Your task to perform on an android device: Search for razer blade on walmart, select the first entry, and add it to the cart. Image 0: 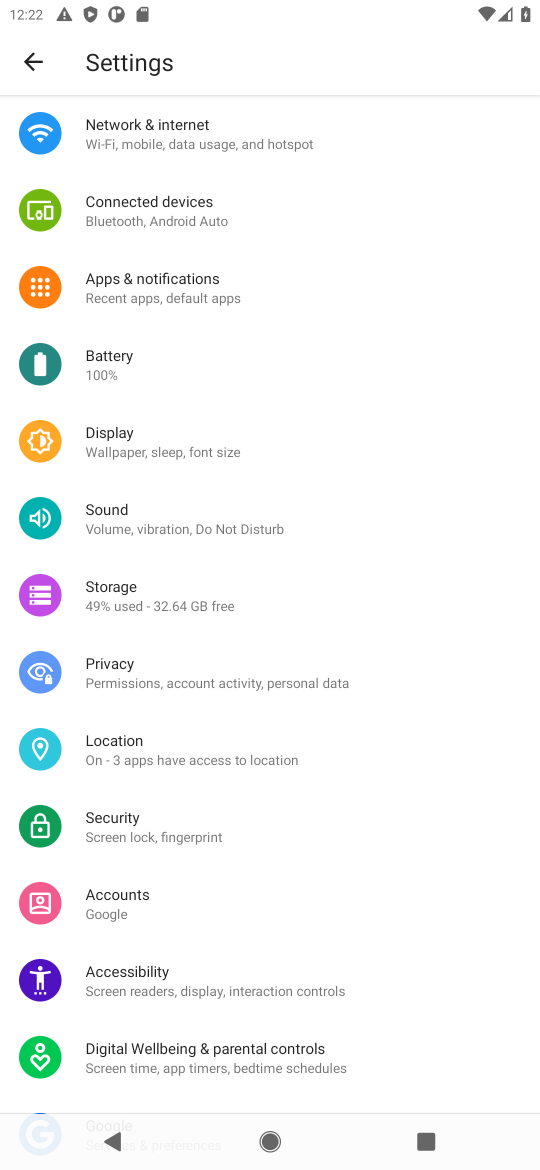
Step 0: press home button
Your task to perform on an android device: Search for razer blade on walmart, select the first entry, and add it to the cart. Image 1: 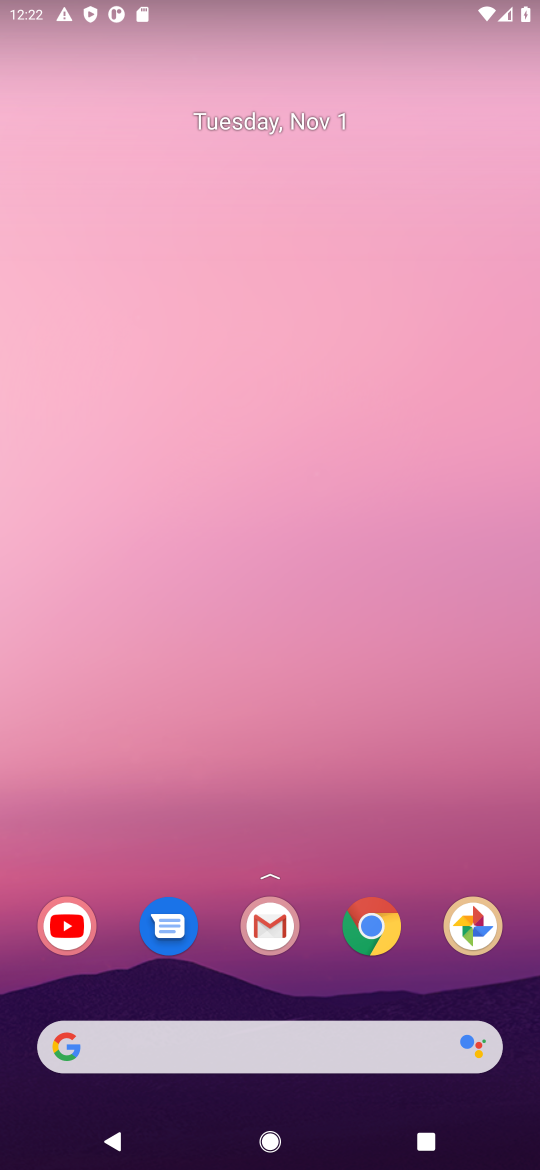
Step 1: click (369, 936)
Your task to perform on an android device: Search for razer blade on walmart, select the first entry, and add it to the cart. Image 2: 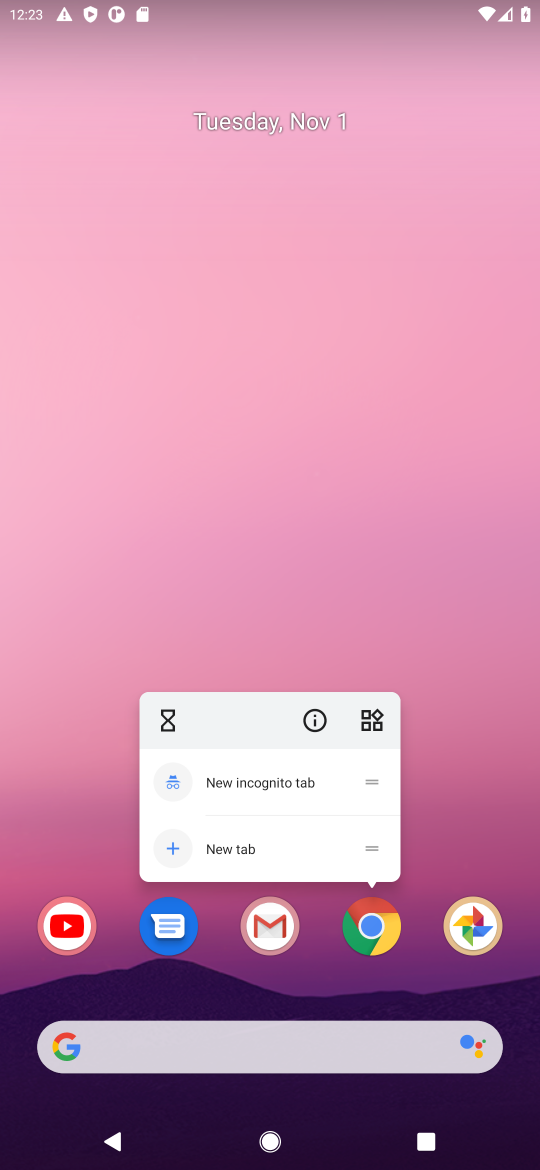
Step 2: click (372, 936)
Your task to perform on an android device: Search for razer blade on walmart, select the first entry, and add it to the cart. Image 3: 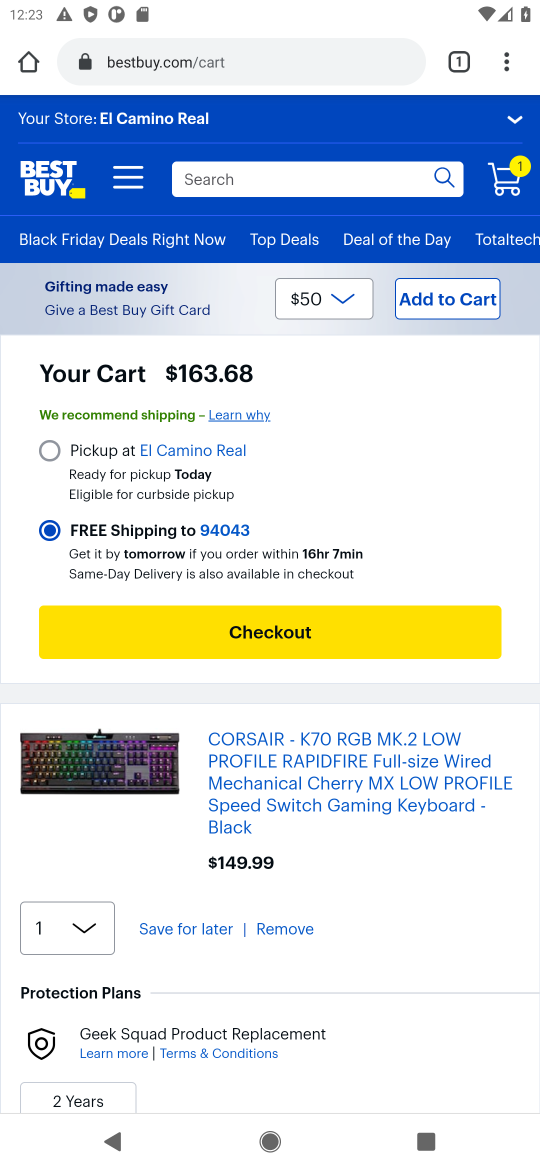
Step 3: click (192, 79)
Your task to perform on an android device: Search for razer blade on walmart, select the first entry, and add it to the cart. Image 4: 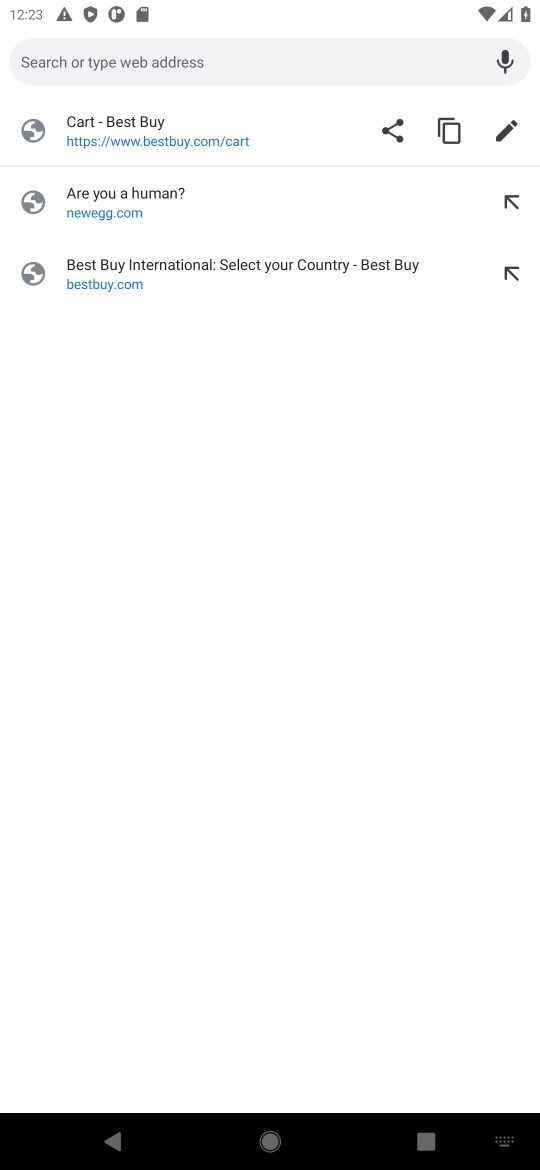
Step 4: type "walmart"
Your task to perform on an android device: Search for razer blade on walmart, select the first entry, and add it to the cart. Image 5: 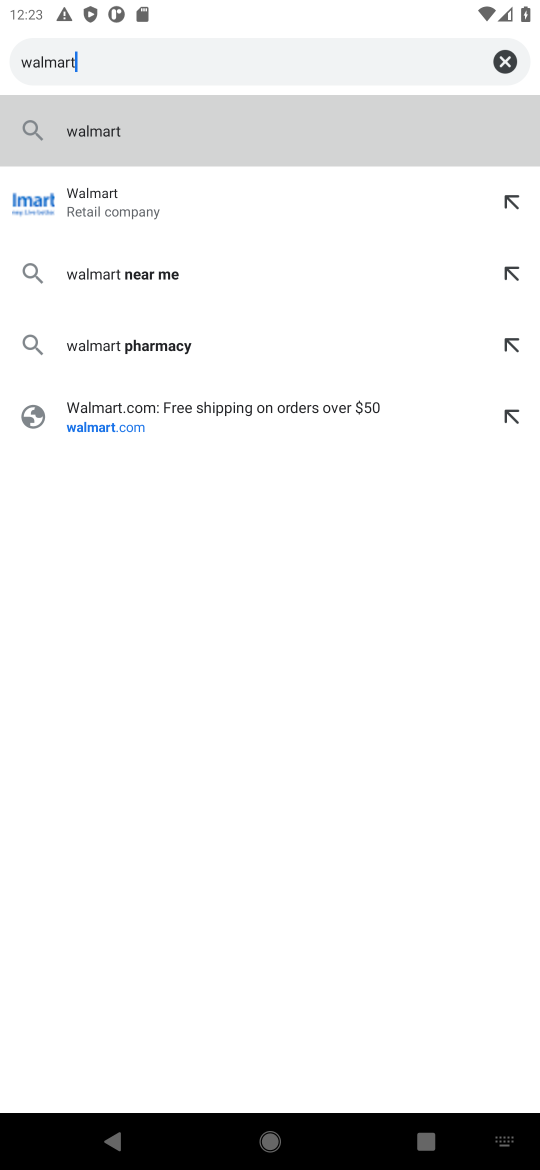
Step 5: click (110, 128)
Your task to perform on an android device: Search for razer blade on walmart, select the first entry, and add it to the cart. Image 6: 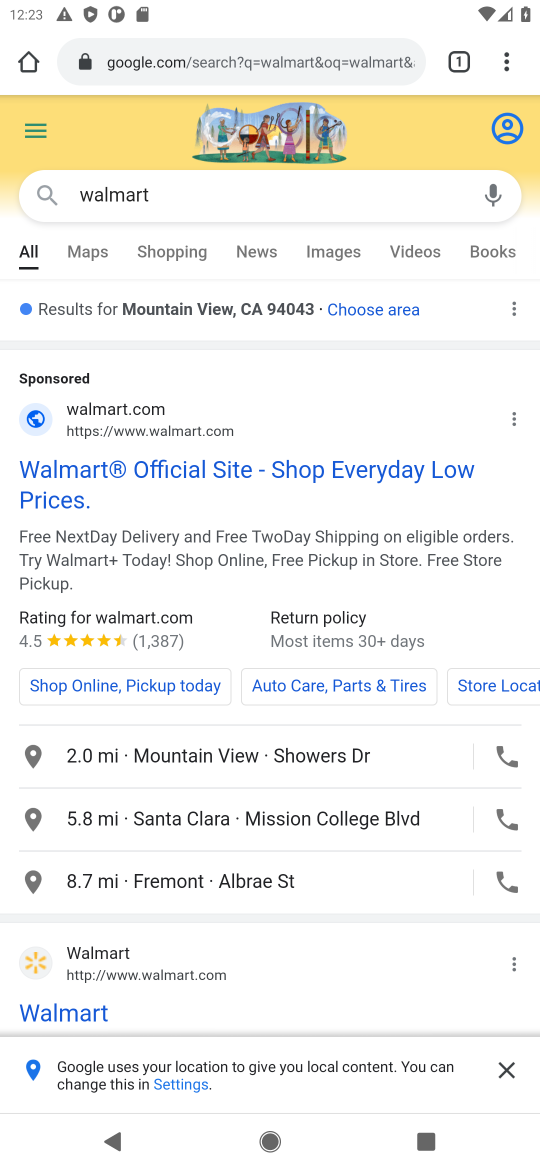
Step 6: drag from (269, 509) to (242, 274)
Your task to perform on an android device: Search for razer blade on walmart, select the first entry, and add it to the cart. Image 7: 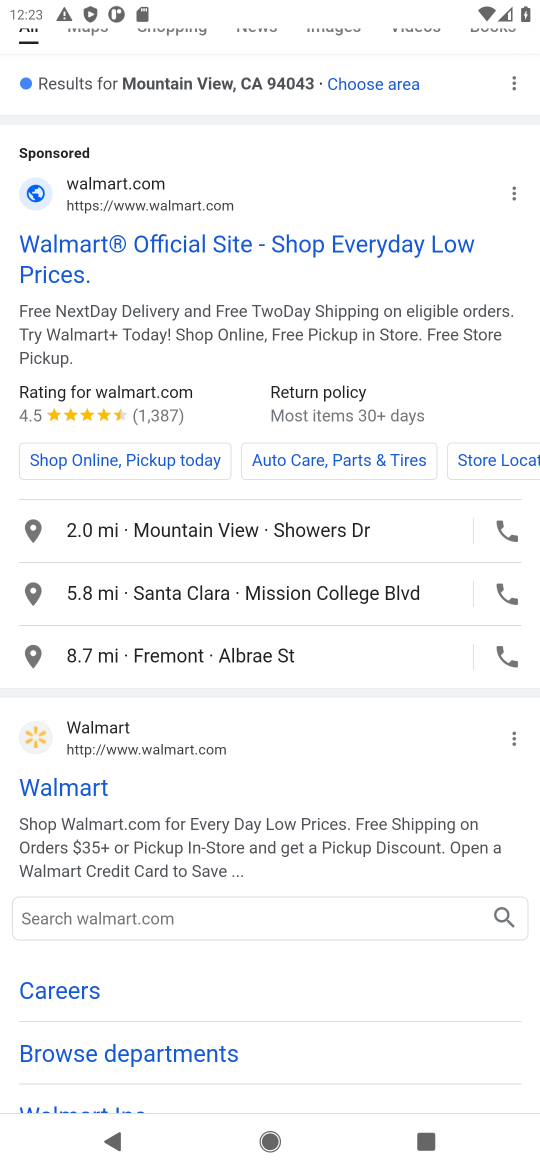
Step 7: click (76, 787)
Your task to perform on an android device: Search for razer blade on walmart, select the first entry, and add it to the cart. Image 8: 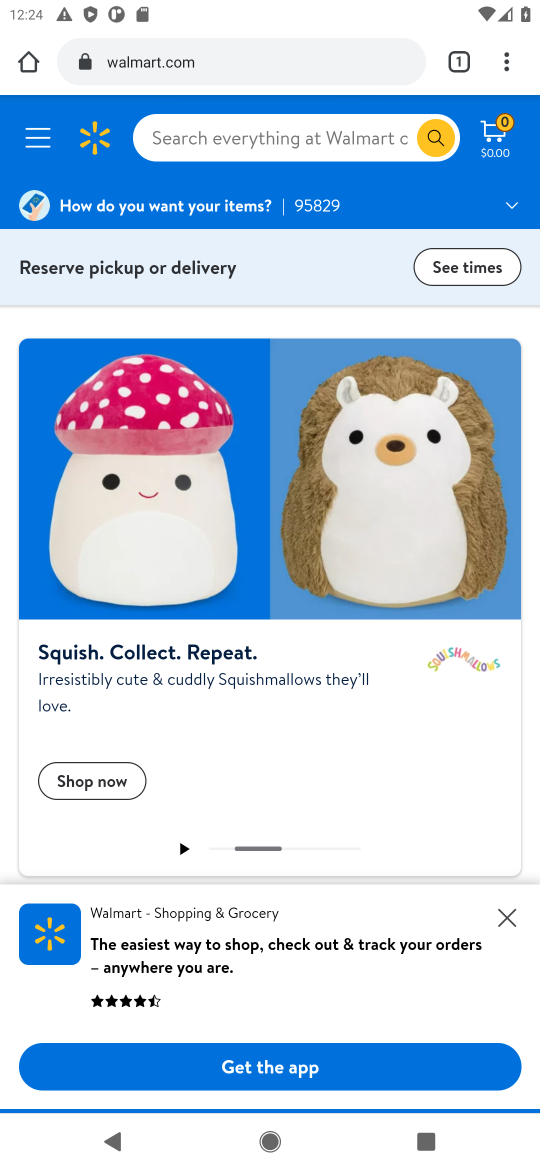
Step 8: click (291, 135)
Your task to perform on an android device: Search for razer blade on walmart, select the first entry, and add it to the cart. Image 9: 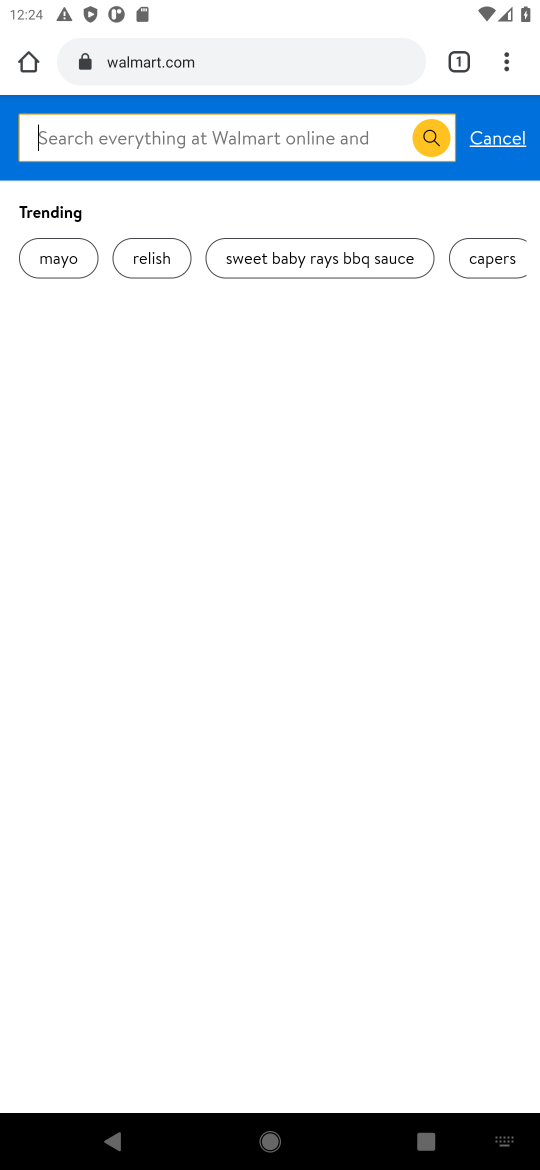
Step 9: type "razer blade"
Your task to perform on an android device: Search for razer blade on walmart, select the first entry, and add it to the cart. Image 10: 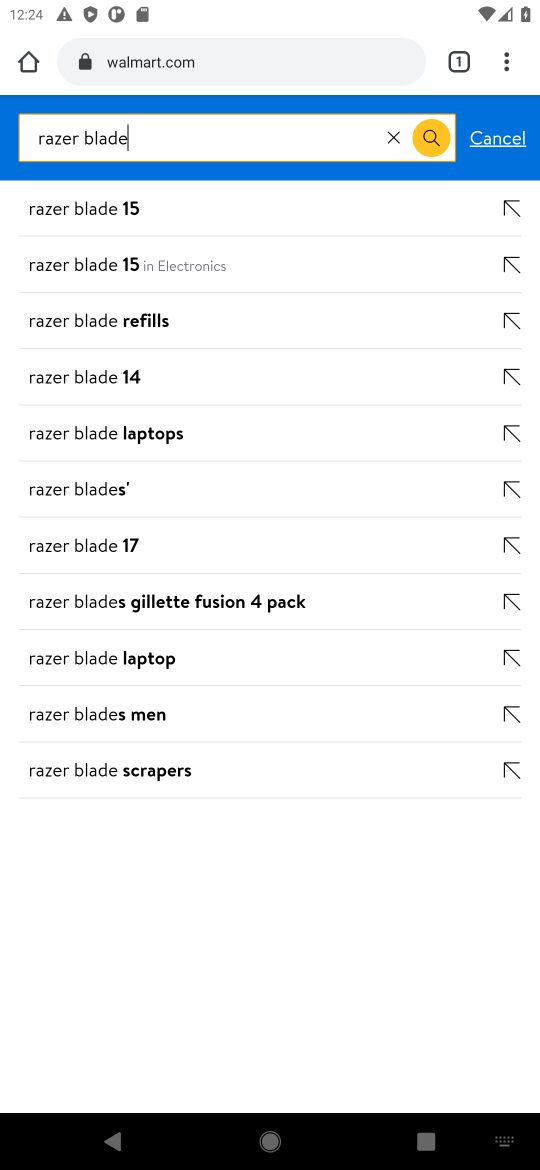
Step 10: press enter
Your task to perform on an android device: Search for razer blade on walmart, select the first entry, and add it to the cart. Image 11: 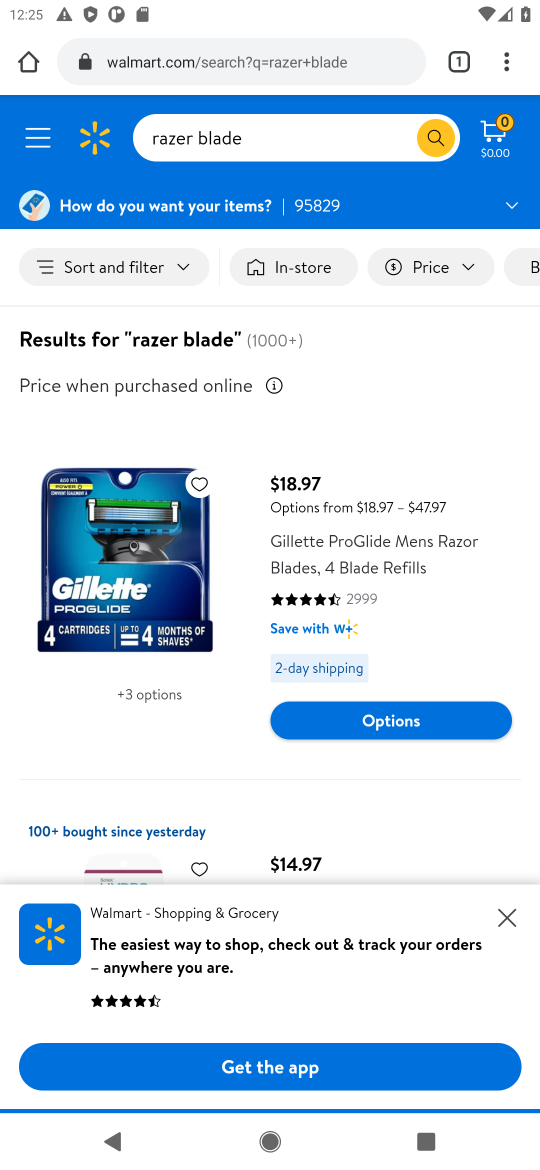
Step 11: click (509, 924)
Your task to perform on an android device: Search for razer blade on walmart, select the first entry, and add it to the cart. Image 12: 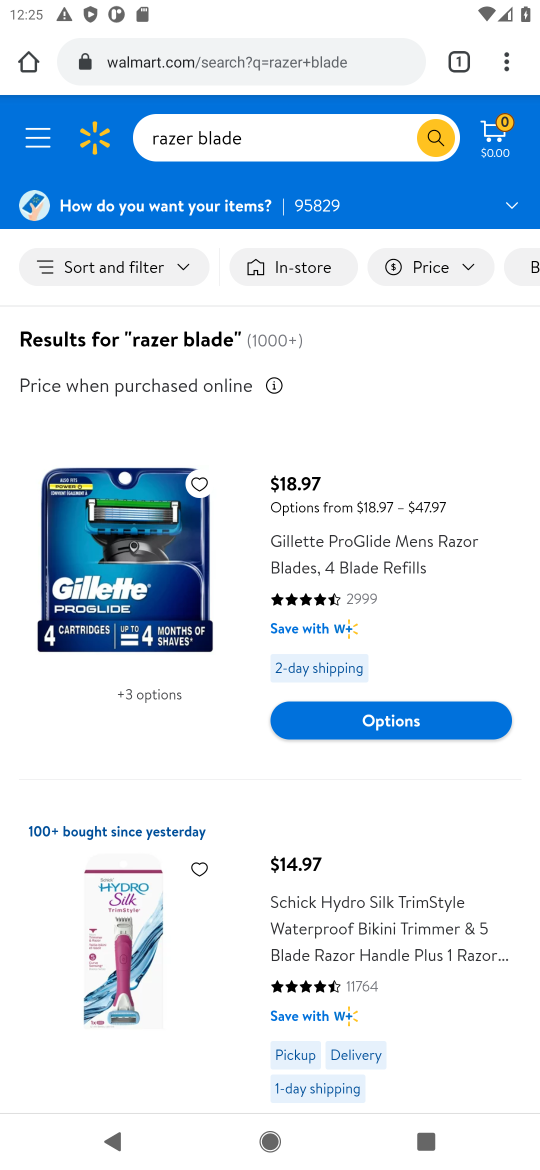
Step 12: click (316, 526)
Your task to perform on an android device: Search for razer blade on walmart, select the first entry, and add it to the cart. Image 13: 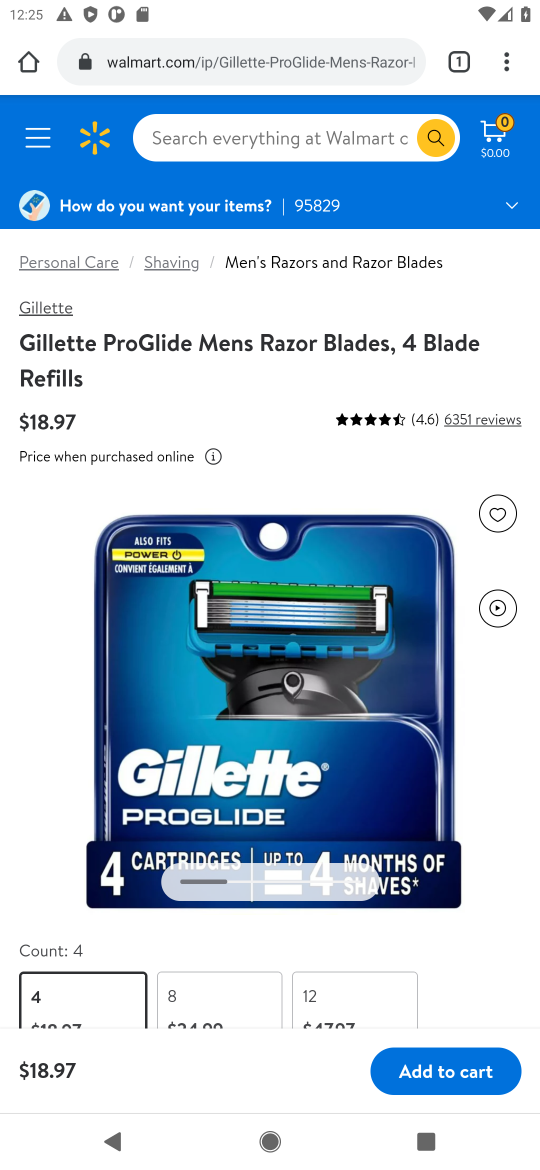
Step 13: click (452, 1076)
Your task to perform on an android device: Search for razer blade on walmart, select the first entry, and add it to the cart. Image 14: 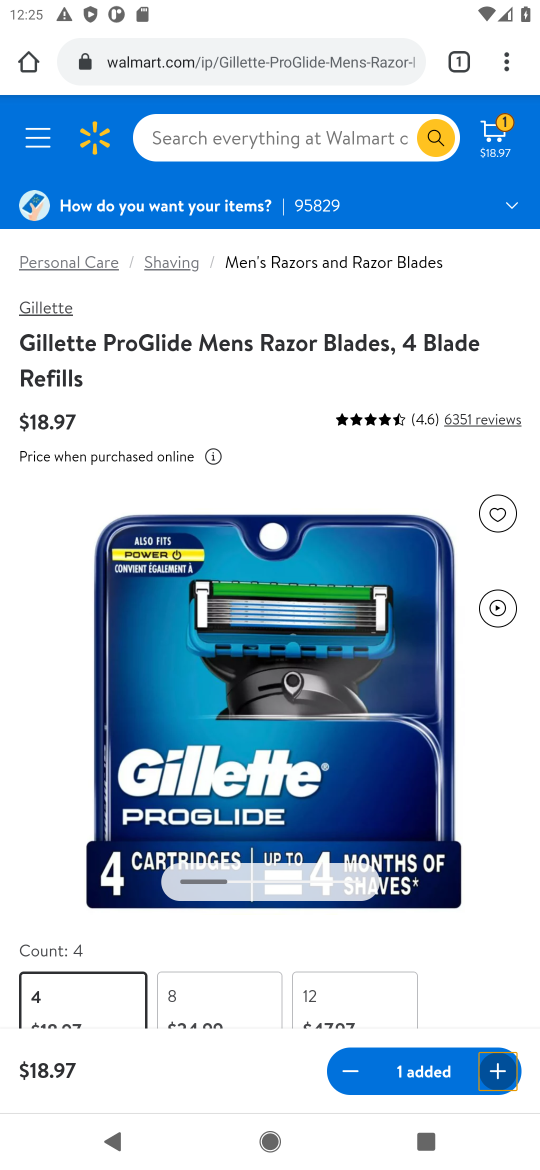
Step 14: task complete